Your task to perform on an android device: Open display settings Image 0: 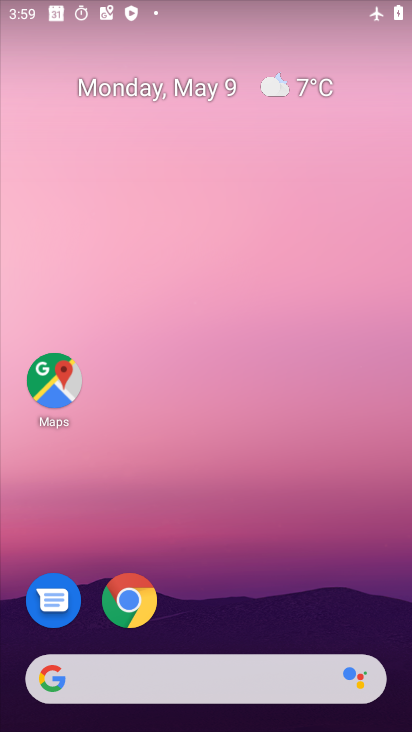
Step 0: drag from (265, 655) to (278, 156)
Your task to perform on an android device: Open display settings Image 1: 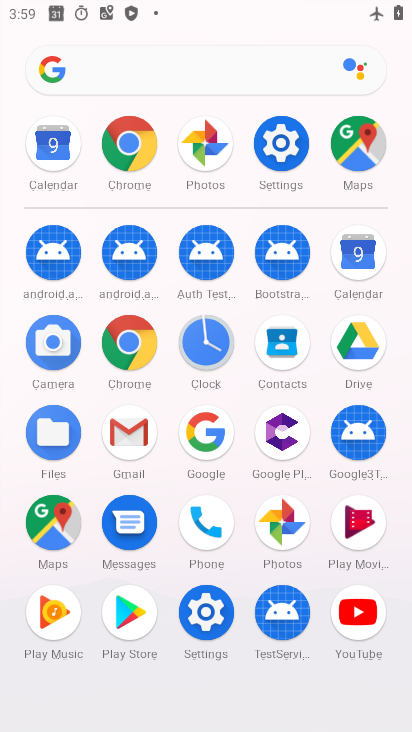
Step 1: click (278, 146)
Your task to perform on an android device: Open display settings Image 2: 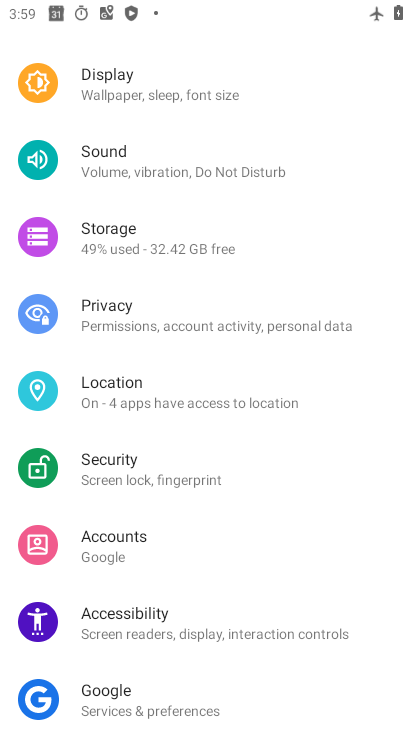
Step 2: click (167, 106)
Your task to perform on an android device: Open display settings Image 3: 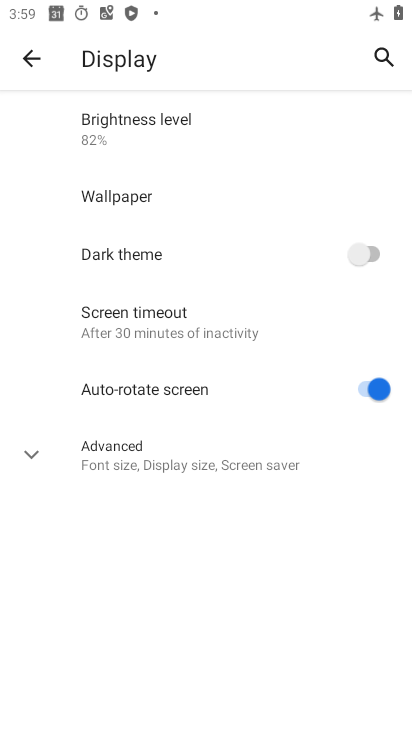
Step 3: task complete